Your task to perform on an android device: open a bookmark in the chrome app Image 0: 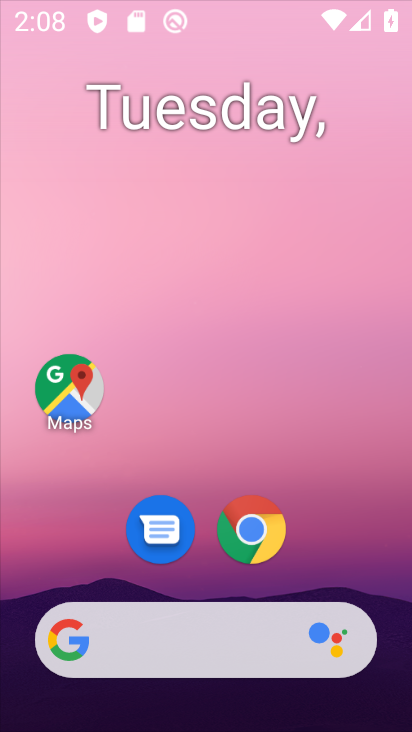
Step 0: click (331, 56)
Your task to perform on an android device: open a bookmark in the chrome app Image 1: 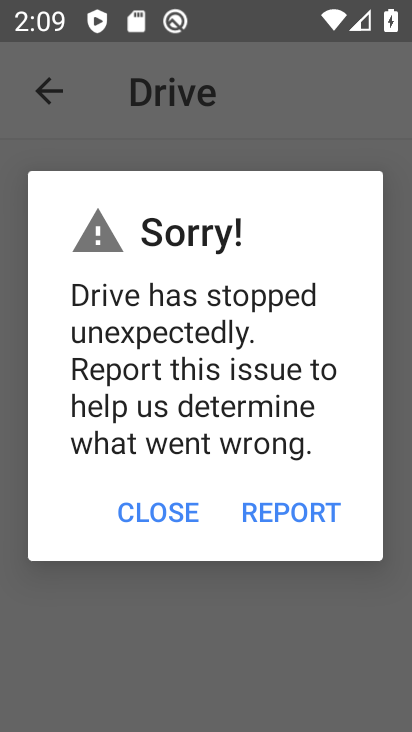
Step 1: press home button
Your task to perform on an android device: open a bookmark in the chrome app Image 2: 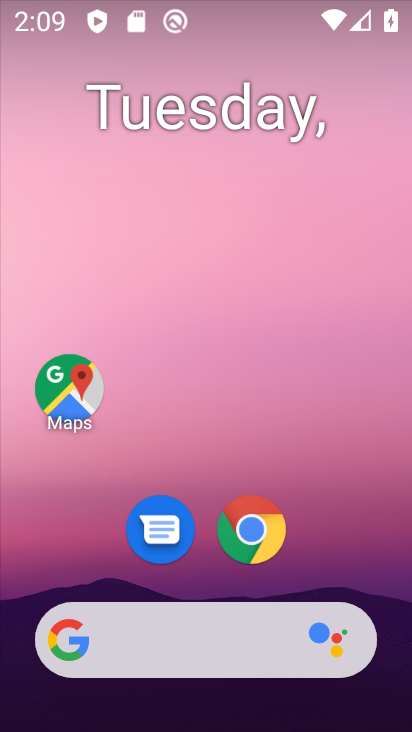
Step 2: click (251, 530)
Your task to perform on an android device: open a bookmark in the chrome app Image 3: 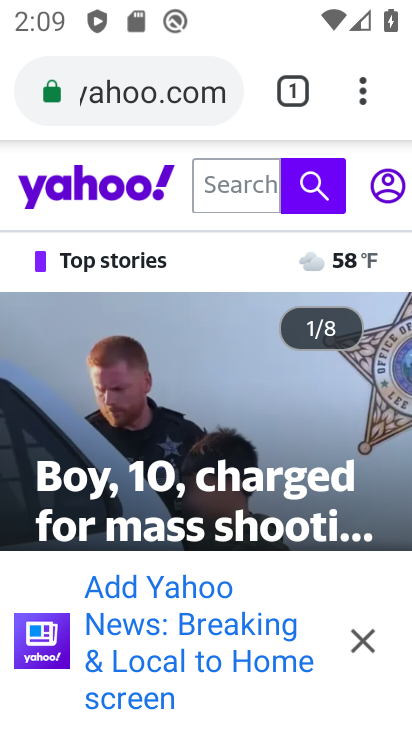
Step 3: click (366, 95)
Your task to perform on an android device: open a bookmark in the chrome app Image 4: 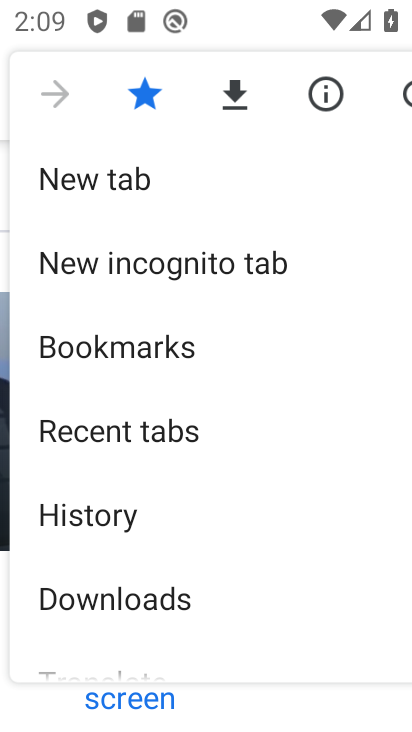
Step 4: click (119, 342)
Your task to perform on an android device: open a bookmark in the chrome app Image 5: 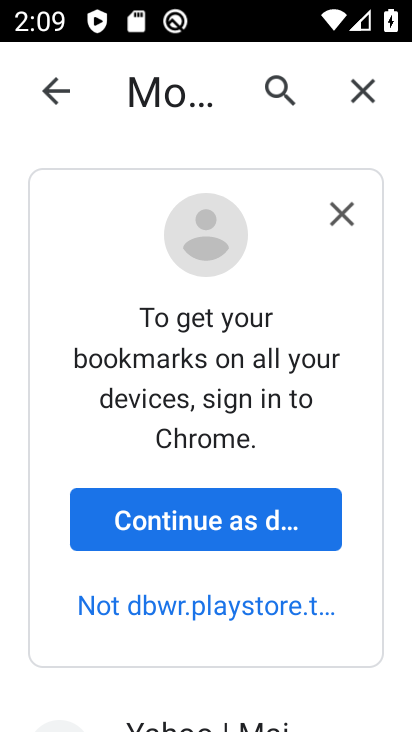
Step 5: click (349, 208)
Your task to perform on an android device: open a bookmark in the chrome app Image 6: 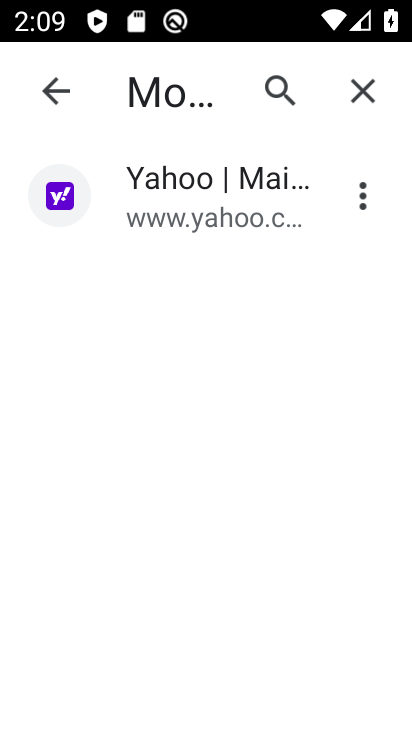
Step 6: click (212, 230)
Your task to perform on an android device: open a bookmark in the chrome app Image 7: 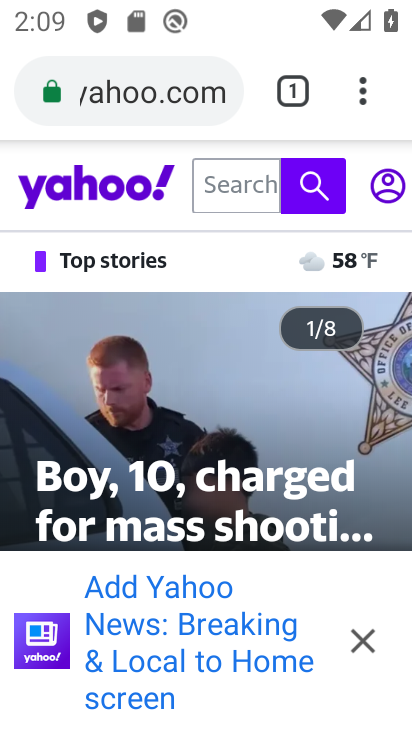
Step 7: task complete